Your task to perform on an android device: Go to Maps Image 0: 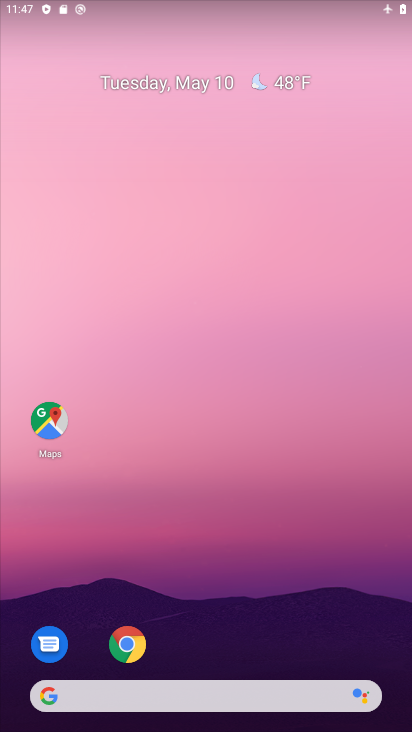
Step 0: click (71, 429)
Your task to perform on an android device: Go to Maps Image 1: 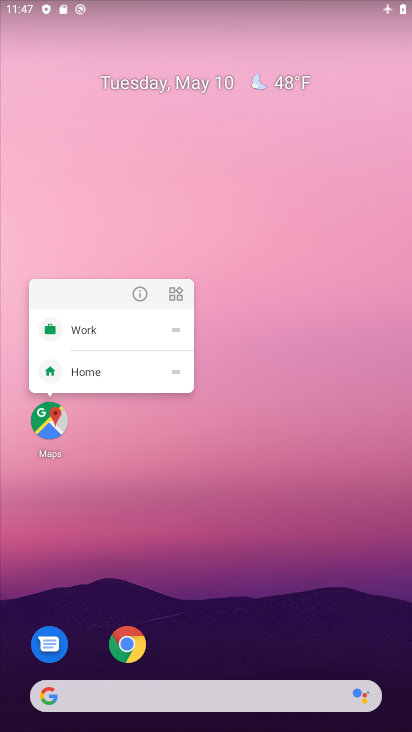
Step 1: click (56, 422)
Your task to perform on an android device: Go to Maps Image 2: 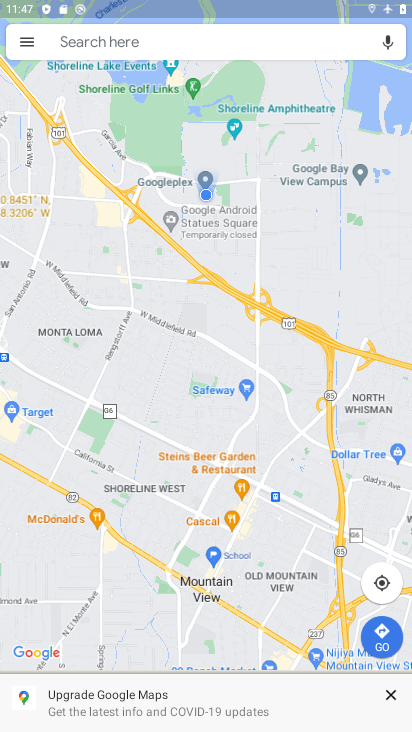
Step 2: task complete